Your task to perform on an android device: turn on location history Image 0: 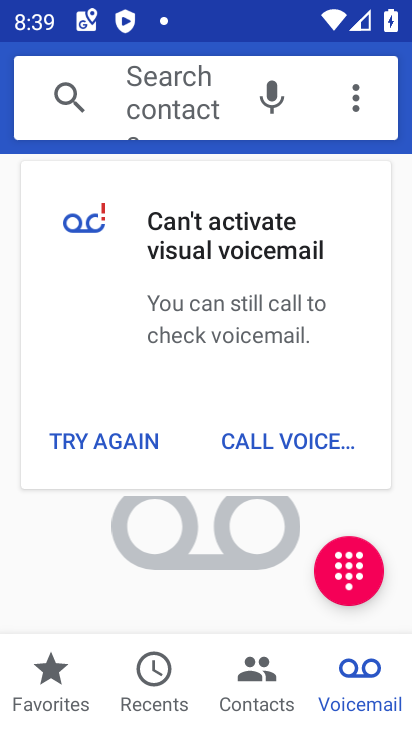
Step 0: press home button
Your task to perform on an android device: turn on location history Image 1: 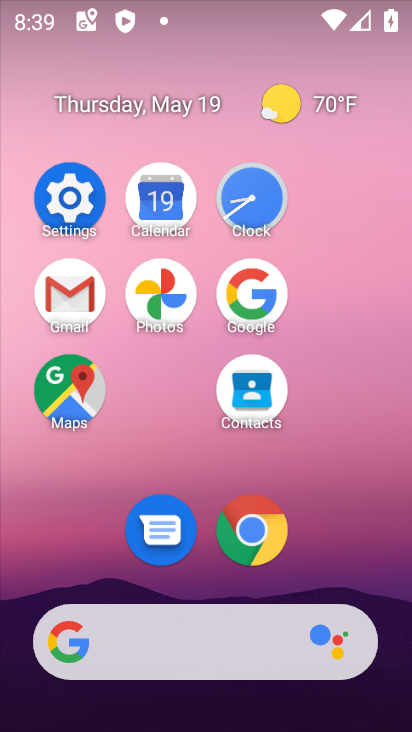
Step 1: click (84, 232)
Your task to perform on an android device: turn on location history Image 2: 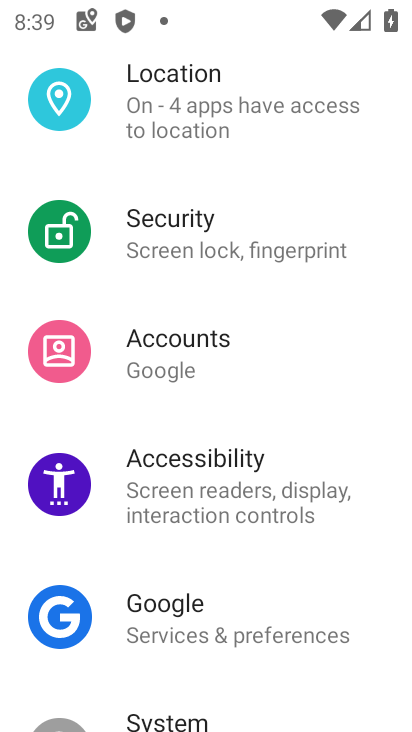
Step 2: click (263, 108)
Your task to perform on an android device: turn on location history Image 3: 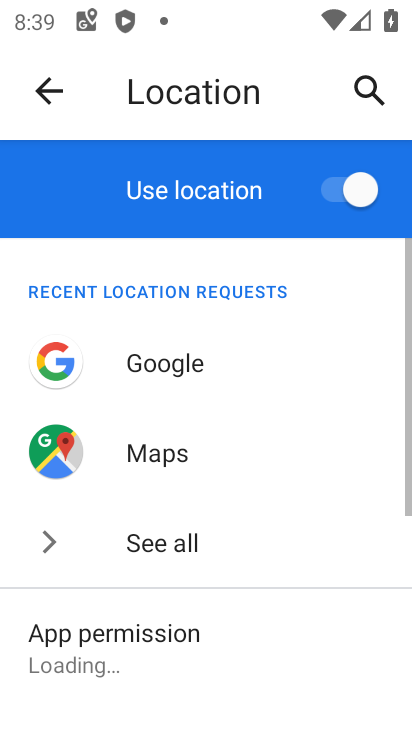
Step 3: drag from (198, 612) to (231, 285)
Your task to perform on an android device: turn on location history Image 4: 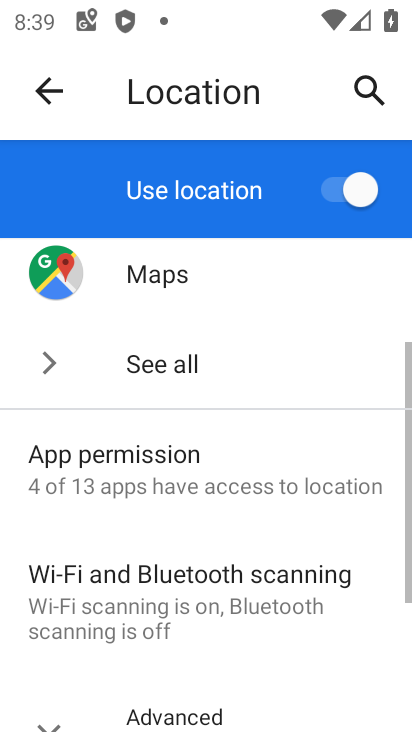
Step 4: click (168, 708)
Your task to perform on an android device: turn on location history Image 5: 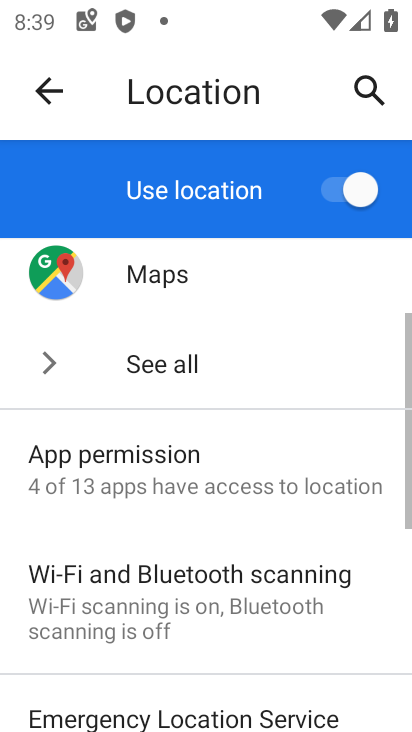
Step 5: drag from (241, 661) to (279, 241)
Your task to perform on an android device: turn on location history Image 6: 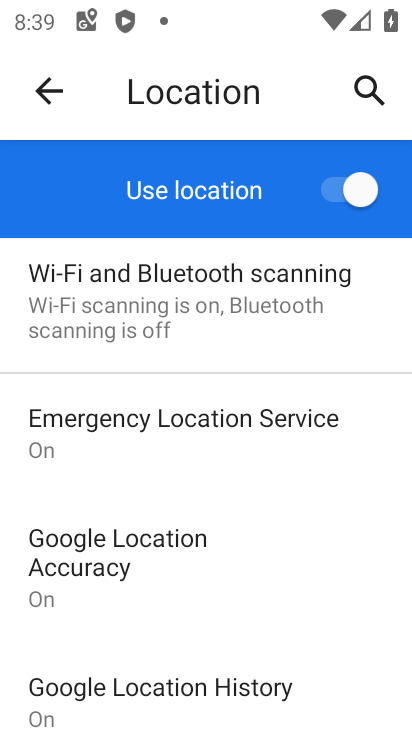
Step 6: click (207, 692)
Your task to perform on an android device: turn on location history Image 7: 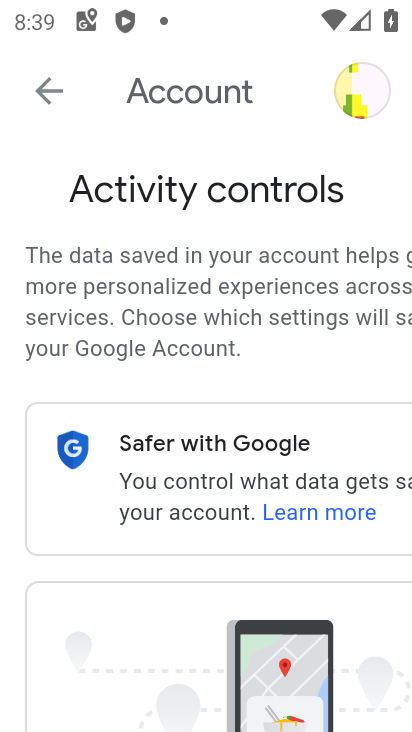
Step 7: drag from (276, 597) to (272, 232)
Your task to perform on an android device: turn on location history Image 8: 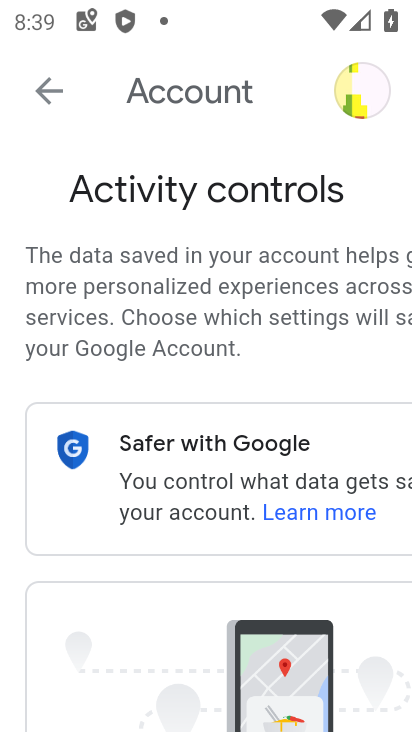
Step 8: drag from (292, 585) to (282, 227)
Your task to perform on an android device: turn on location history Image 9: 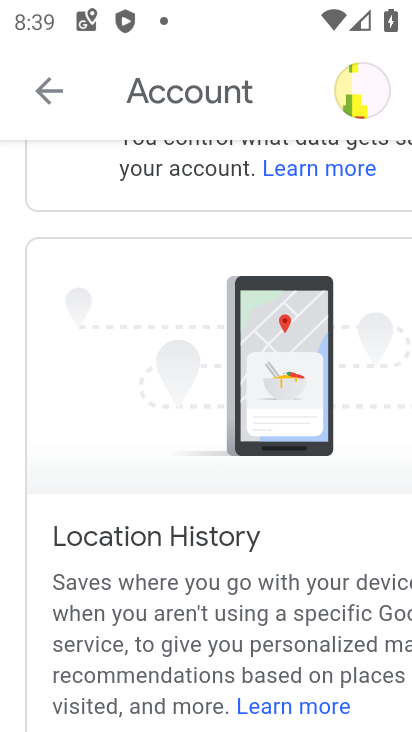
Step 9: drag from (284, 548) to (291, 167)
Your task to perform on an android device: turn on location history Image 10: 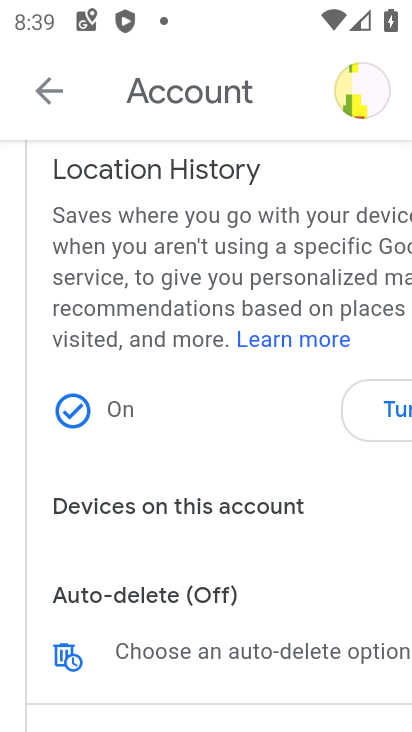
Step 10: click (386, 418)
Your task to perform on an android device: turn on location history Image 11: 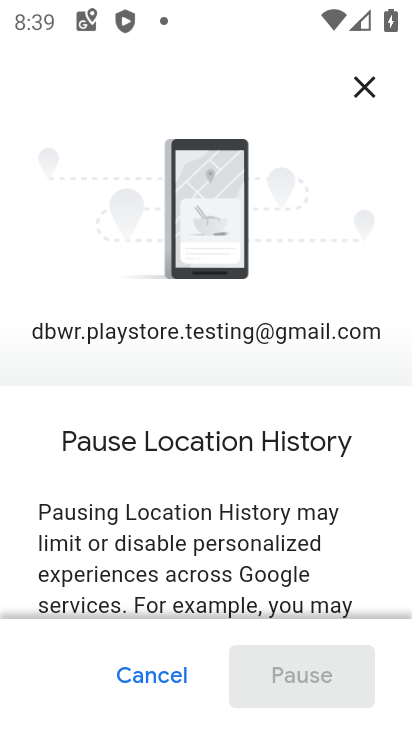
Step 11: task complete